Your task to perform on an android device: Search for Italian restaurants on Maps Image 0: 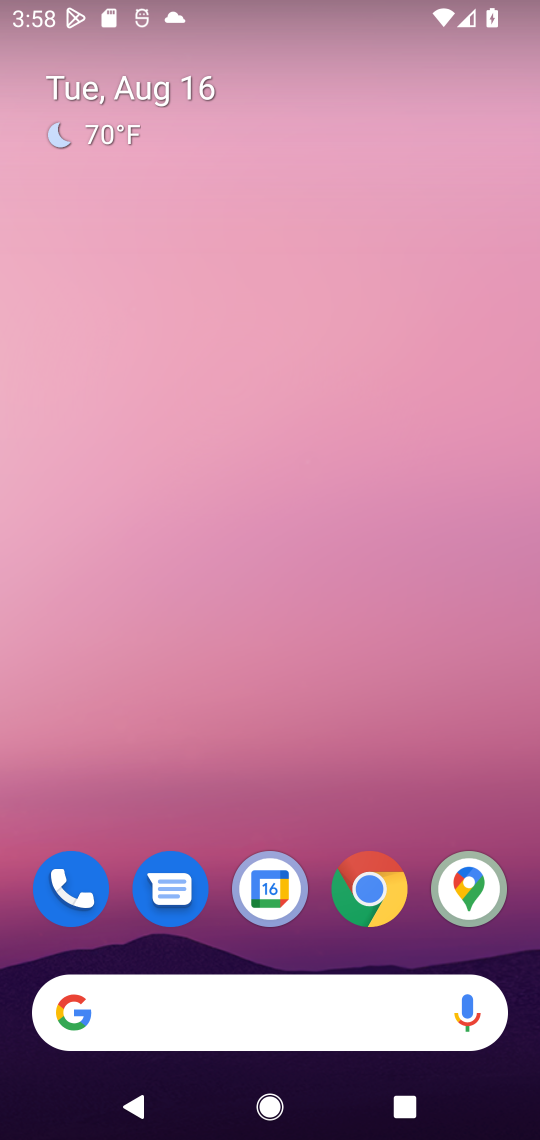
Step 0: click (185, 617)
Your task to perform on an android device: Search for Italian restaurants on Maps Image 1: 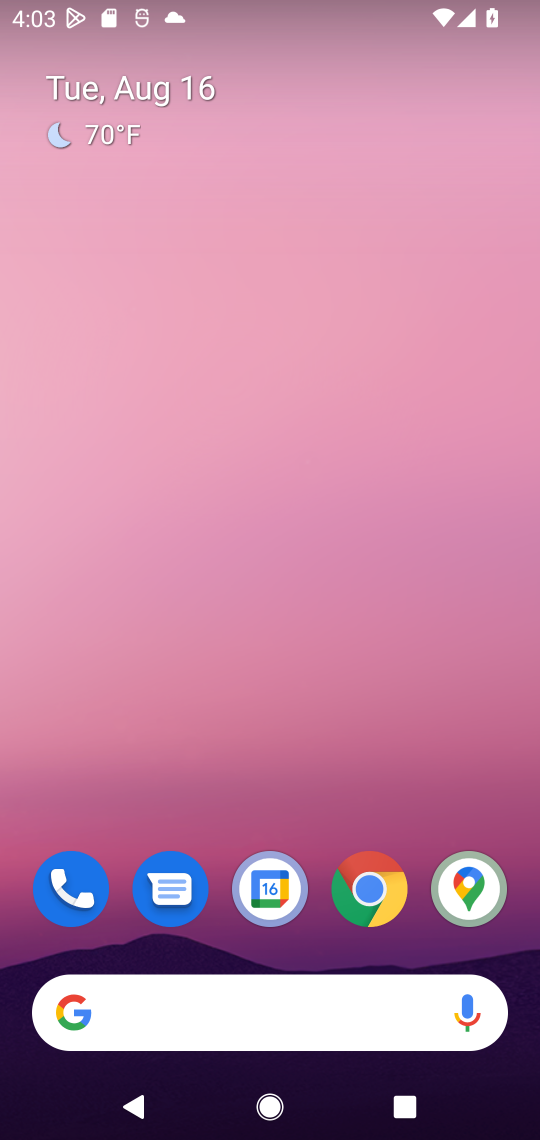
Step 1: click (474, 891)
Your task to perform on an android device: Search for Italian restaurants on Maps Image 2: 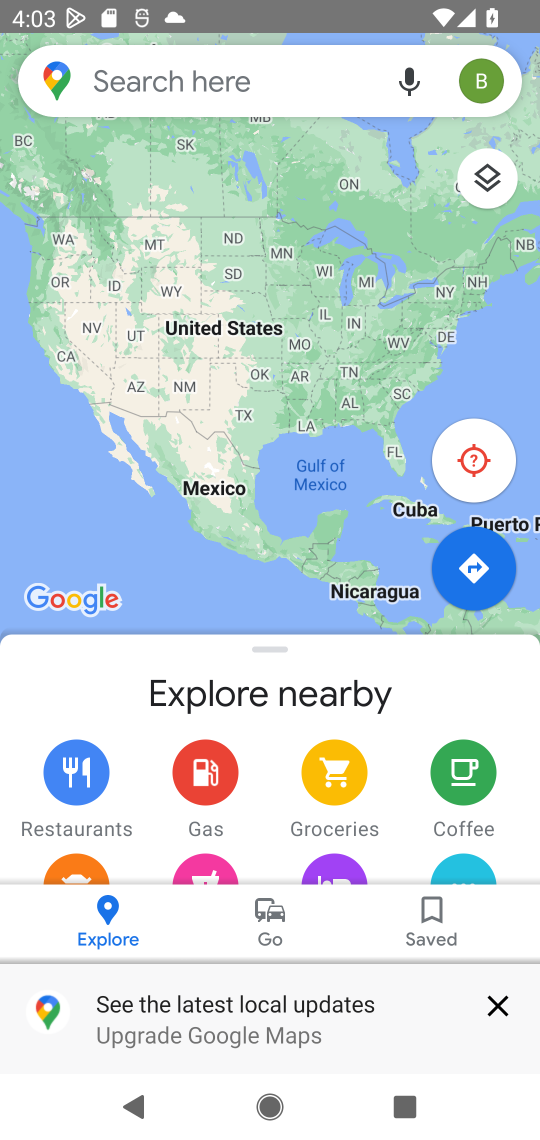
Step 2: click (230, 86)
Your task to perform on an android device: Search for Italian restaurants on Maps Image 3: 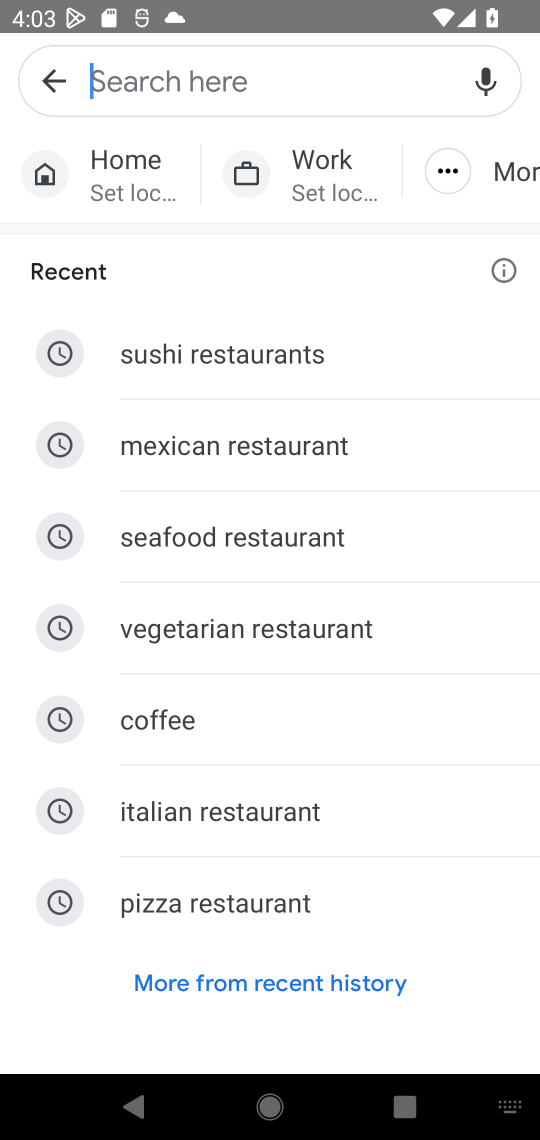
Step 3: type "Italian restaurants"
Your task to perform on an android device: Search for Italian restaurants on Maps Image 4: 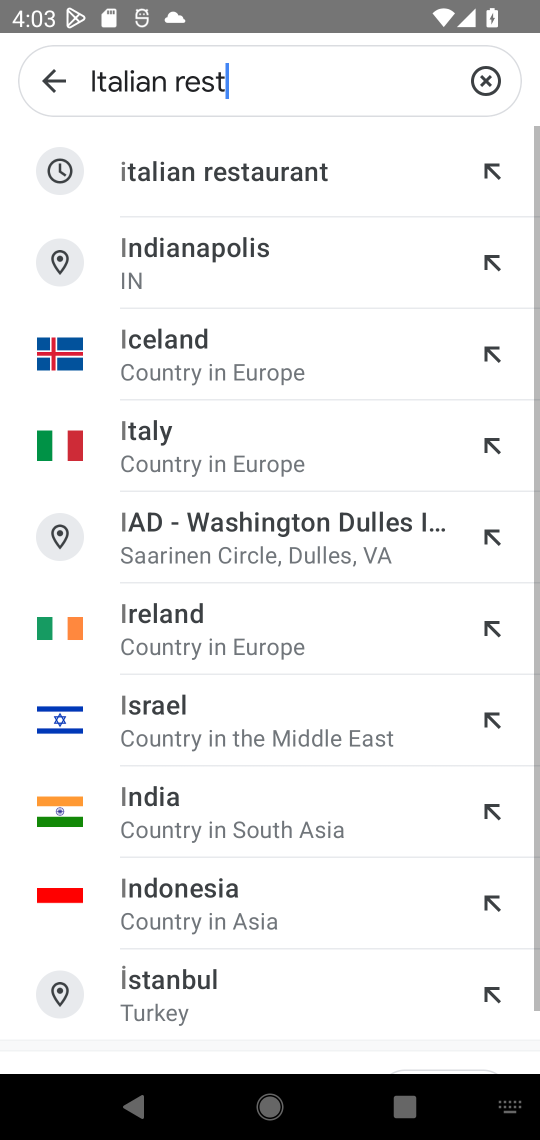
Step 4: press enter
Your task to perform on an android device: Search for Italian restaurants on Maps Image 5: 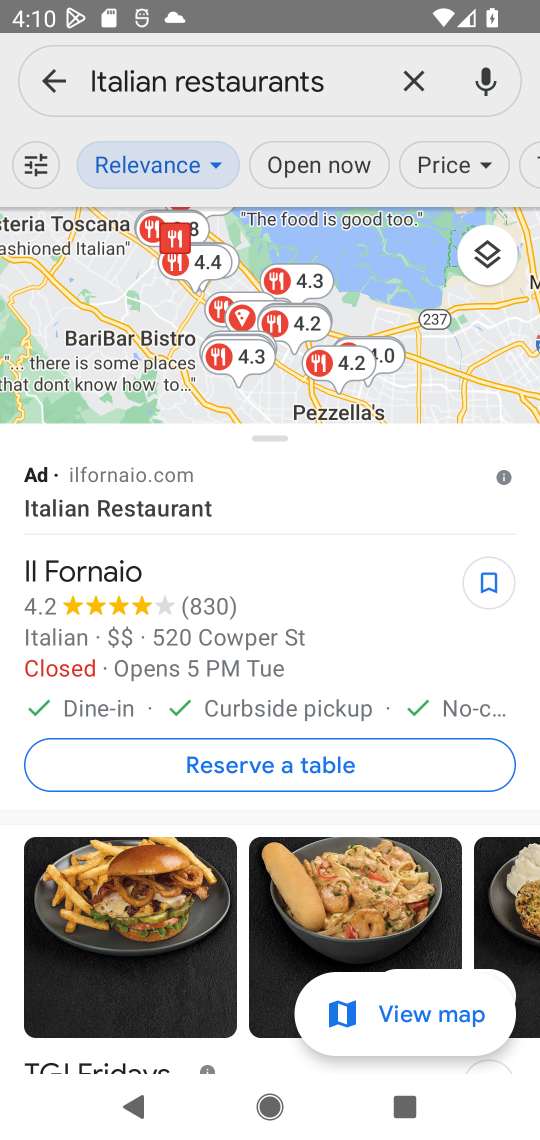
Step 5: task complete